Your task to perform on an android device: set default search engine in the chrome app Image 0: 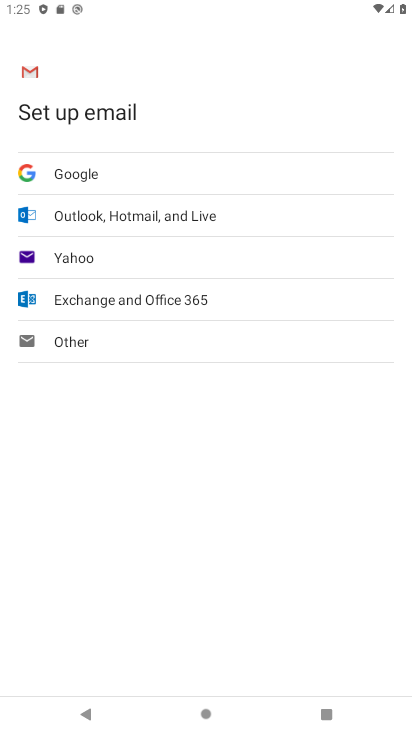
Step 0: press home button
Your task to perform on an android device: set default search engine in the chrome app Image 1: 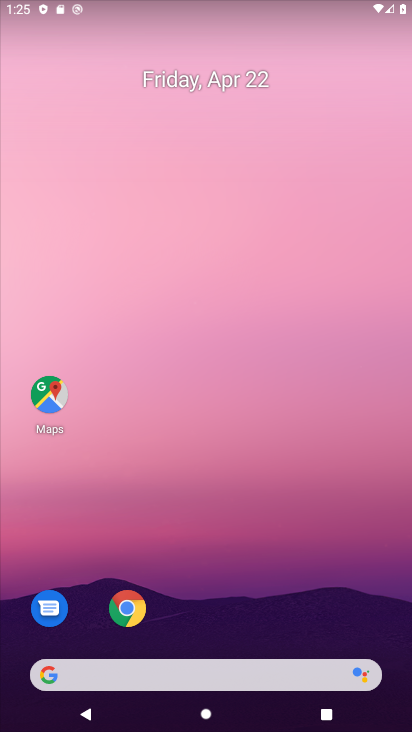
Step 1: drag from (270, 609) to (264, 259)
Your task to perform on an android device: set default search engine in the chrome app Image 2: 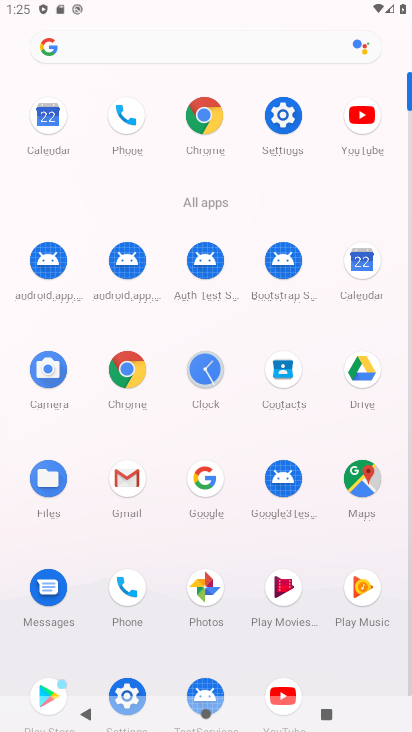
Step 2: click (125, 360)
Your task to perform on an android device: set default search engine in the chrome app Image 3: 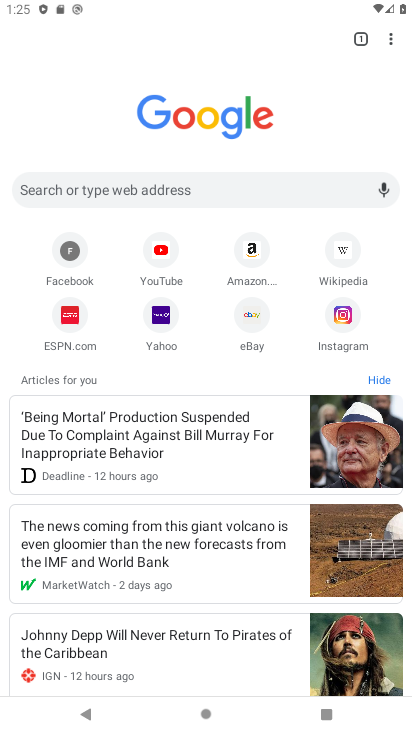
Step 3: click (384, 38)
Your task to perform on an android device: set default search engine in the chrome app Image 4: 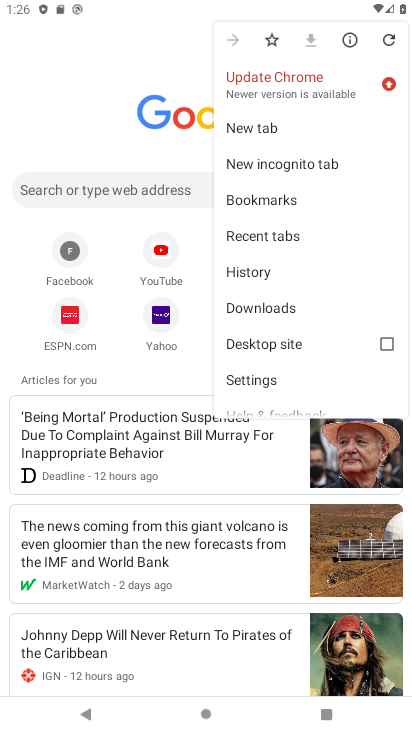
Step 4: click (260, 380)
Your task to perform on an android device: set default search engine in the chrome app Image 5: 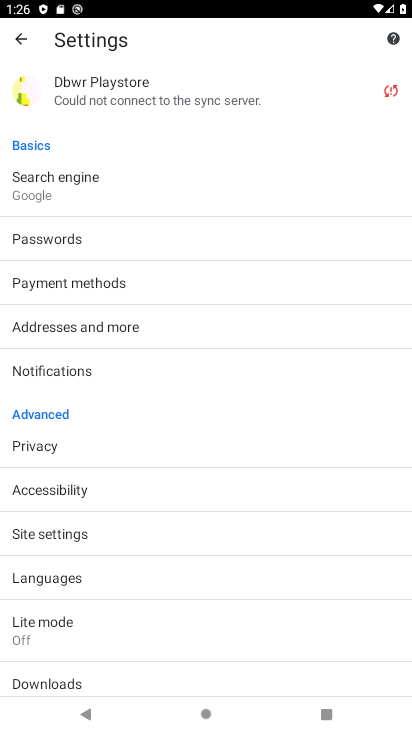
Step 5: click (164, 191)
Your task to perform on an android device: set default search engine in the chrome app Image 6: 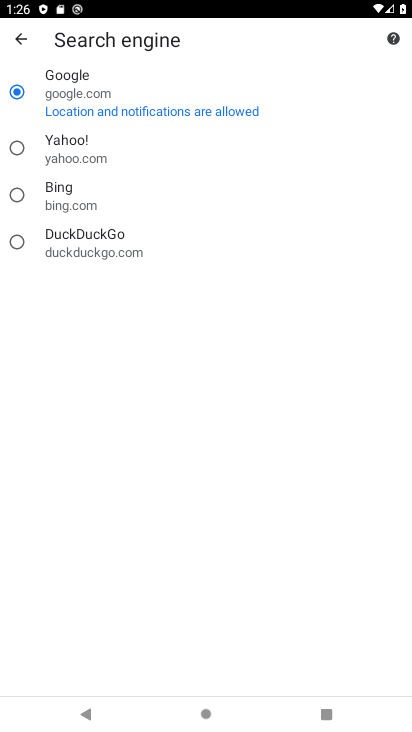
Step 6: click (158, 99)
Your task to perform on an android device: set default search engine in the chrome app Image 7: 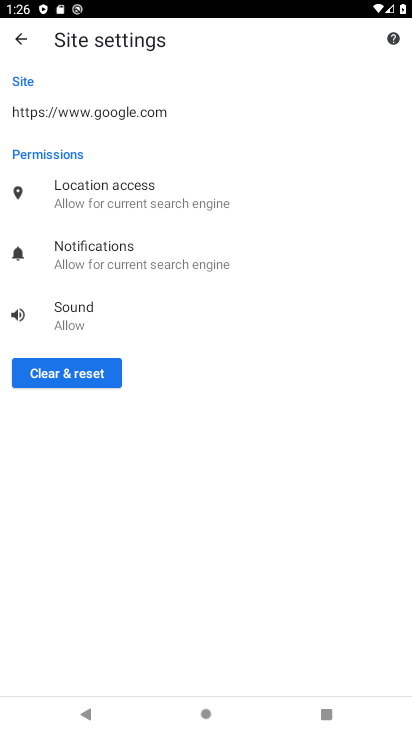
Step 7: click (13, 37)
Your task to perform on an android device: set default search engine in the chrome app Image 8: 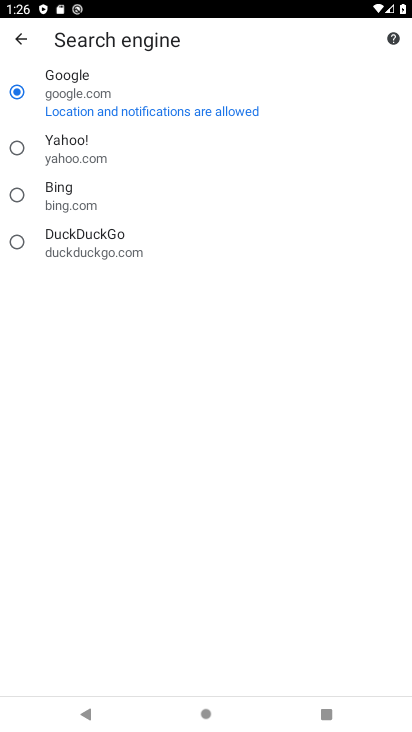
Step 8: task complete